Your task to perform on an android device: turn on showing notifications on the lock screen Image 0: 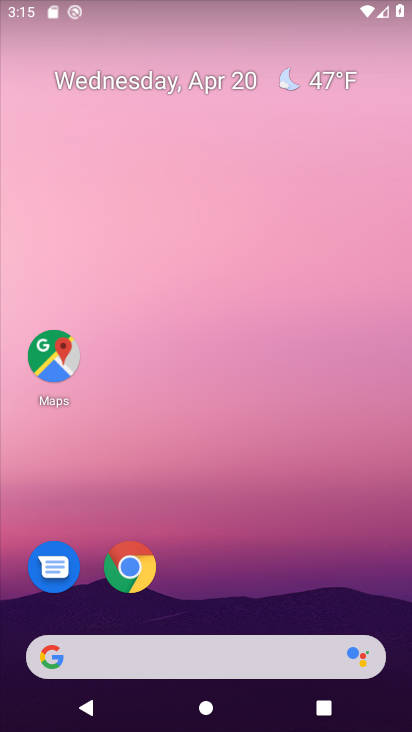
Step 0: drag from (262, 17) to (76, 634)
Your task to perform on an android device: turn on showing notifications on the lock screen Image 1: 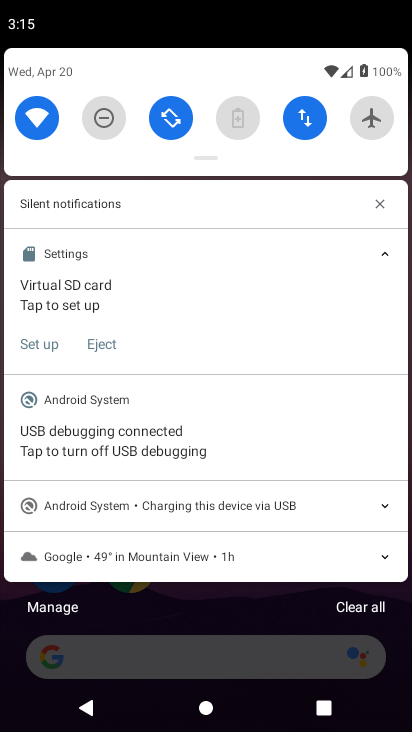
Step 1: drag from (227, 52) to (256, 698)
Your task to perform on an android device: turn on showing notifications on the lock screen Image 2: 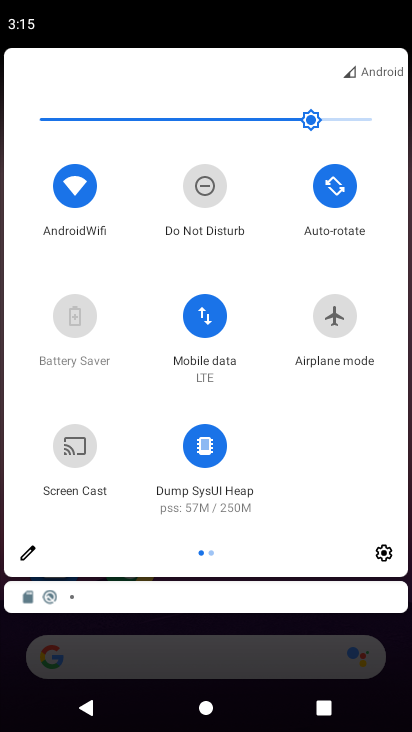
Step 2: click (377, 544)
Your task to perform on an android device: turn on showing notifications on the lock screen Image 3: 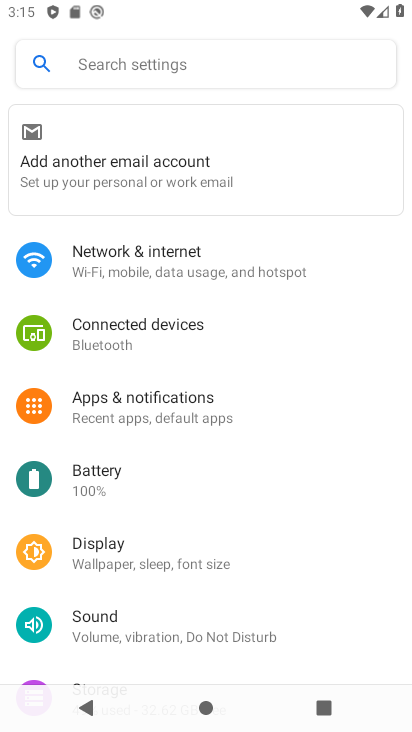
Step 3: click (239, 423)
Your task to perform on an android device: turn on showing notifications on the lock screen Image 4: 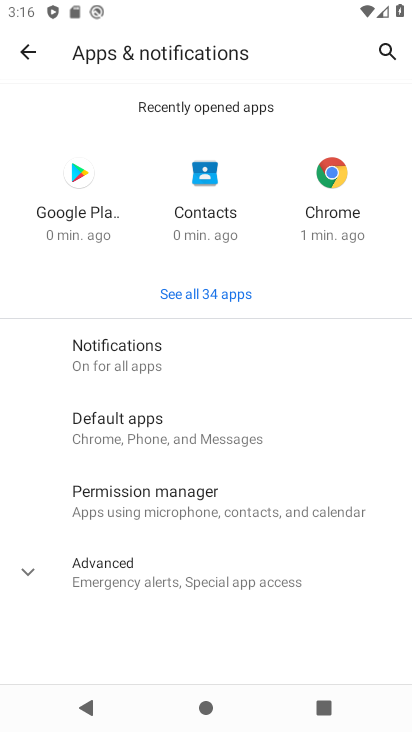
Step 4: click (165, 369)
Your task to perform on an android device: turn on showing notifications on the lock screen Image 5: 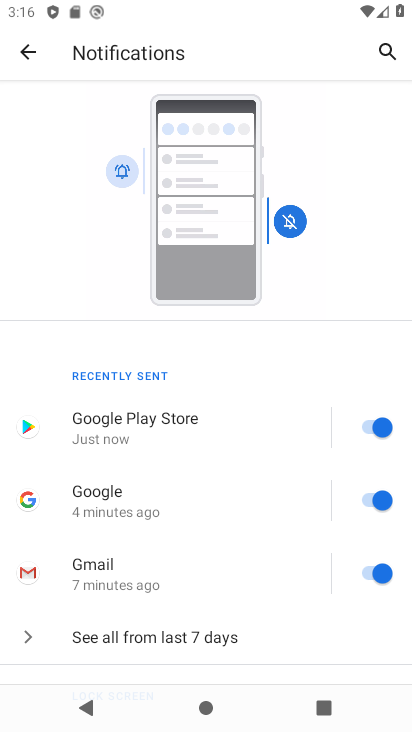
Step 5: drag from (231, 609) to (243, 126)
Your task to perform on an android device: turn on showing notifications on the lock screen Image 6: 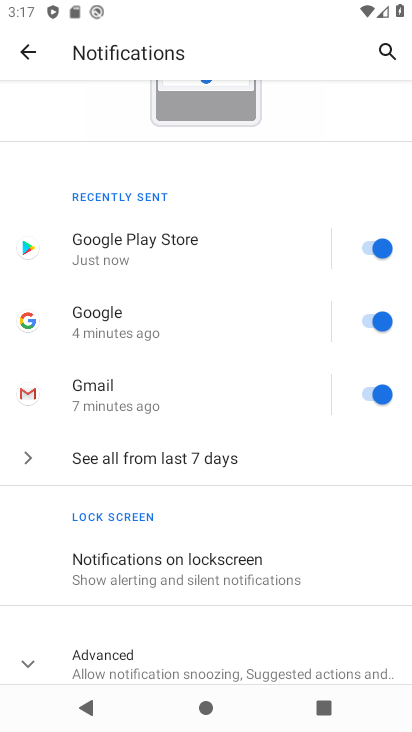
Step 6: click (134, 576)
Your task to perform on an android device: turn on showing notifications on the lock screen Image 7: 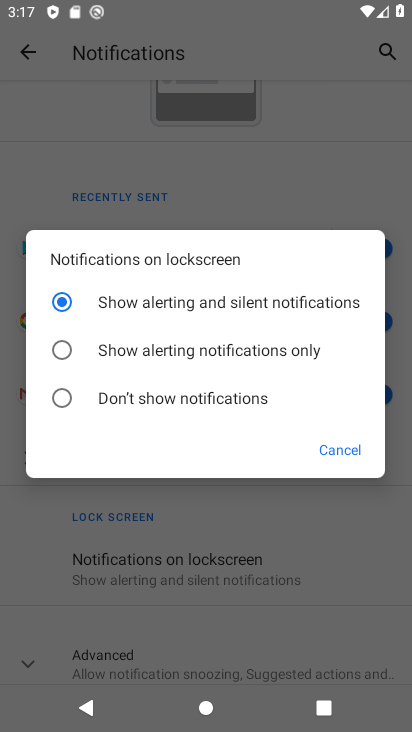
Step 7: task complete